Your task to perform on an android device: open app "ZOOM Cloud Meetings" (install if not already installed), go to login, and select forgot password Image 0: 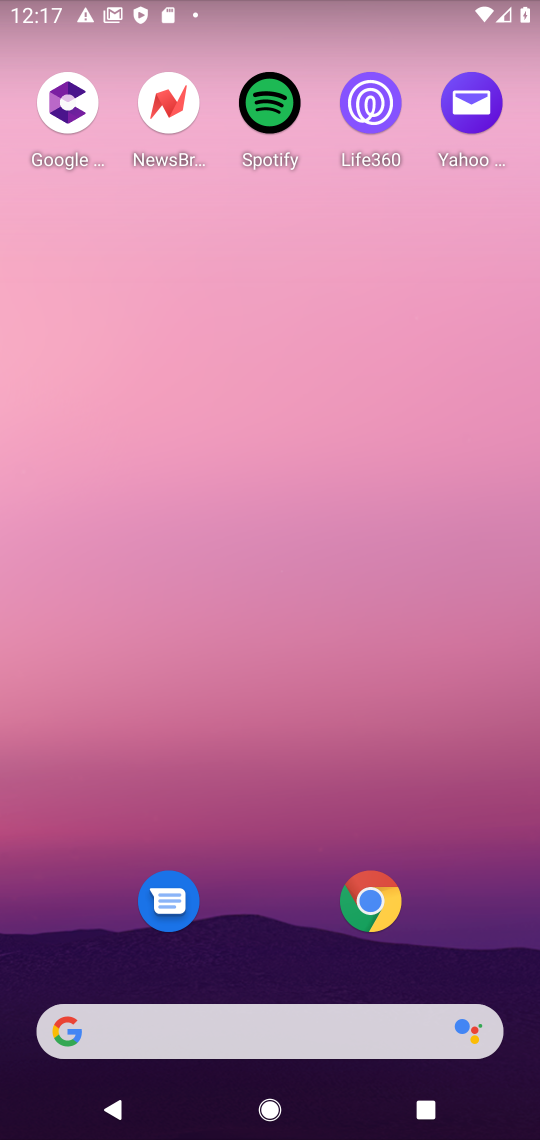
Step 0: drag from (264, 1023) to (216, 53)
Your task to perform on an android device: open app "ZOOM Cloud Meetings" (install if not already installed), go to login, and select forgot password Image 1: 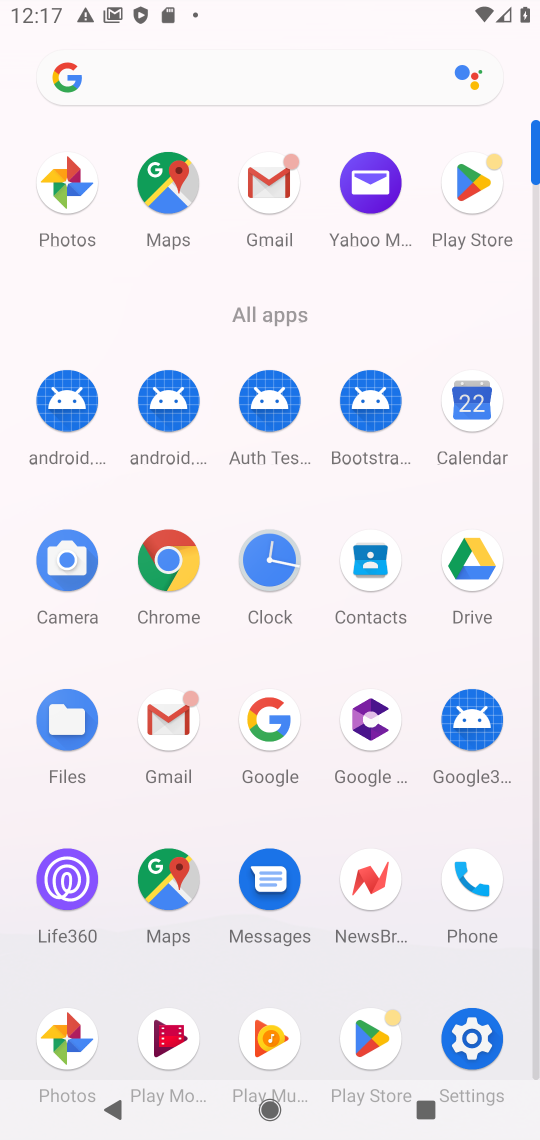
Step 1: click (447, 198)
Your task to perform on an android device: open app "ZOOM Cloud Meetings" (install if not already installed), go to login, and select forgot password Image 2: 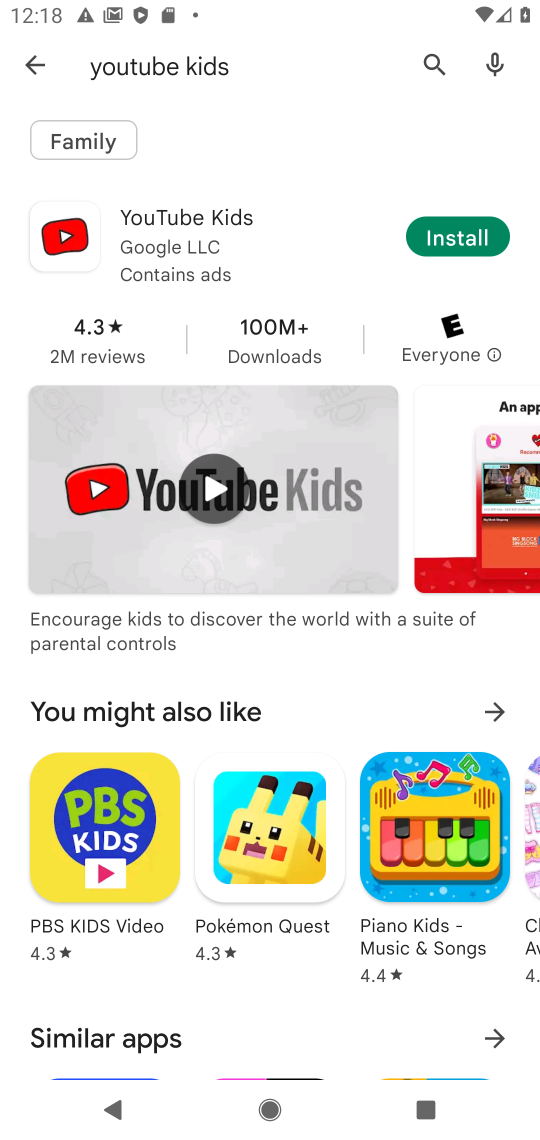
Step 2: click (435, 70)
Your task to perform on an android device: open app "ZOOM Cloud Meetings" (install if not already installed), go to login, and select forgot password Image 3: 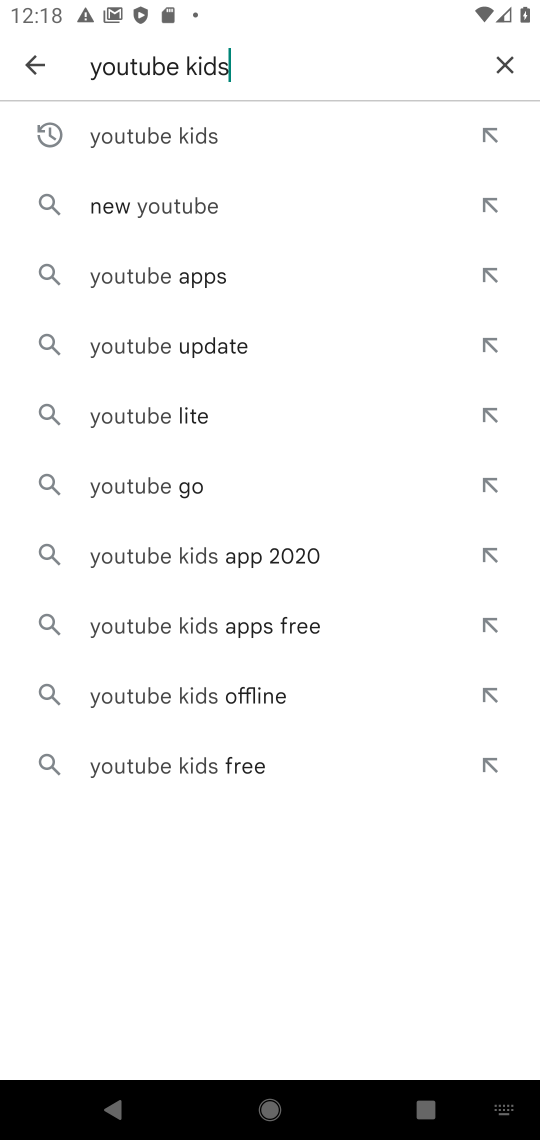
Step 3: click (504, 56)
Your task to perform on an android device: open app "ZOOM Cloud Meetings" (install if not already installed), go to login, and select forgot password Image 4: 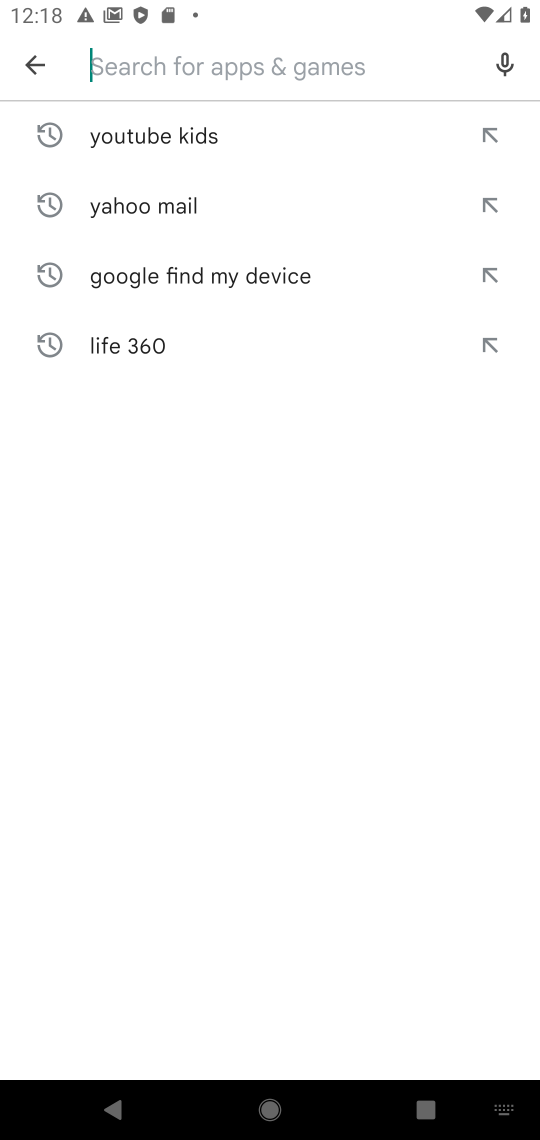
Step 4: type "zoom cloud meetings"
Your task to perform on an android device: open app "ZOOM Cloud Meetings" (install if not already installed), go to login, and select forgot password Image 5: 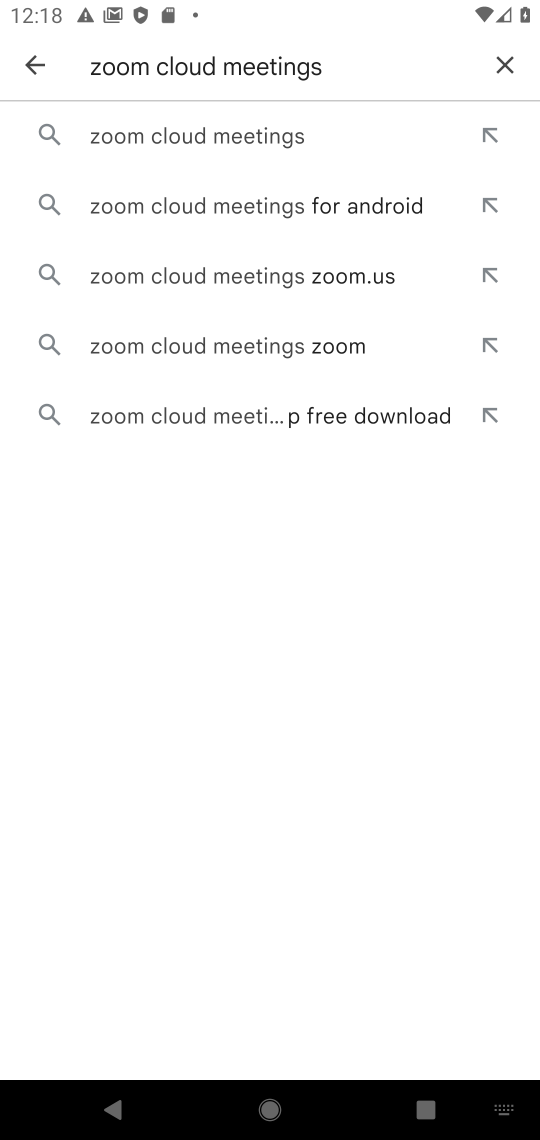
Step 5: click (159, 155)
Your task to perform on an android device: open app "ZOOM Cloud Meetings" (install if not already installed), go to login, and select forgot password Image 6: 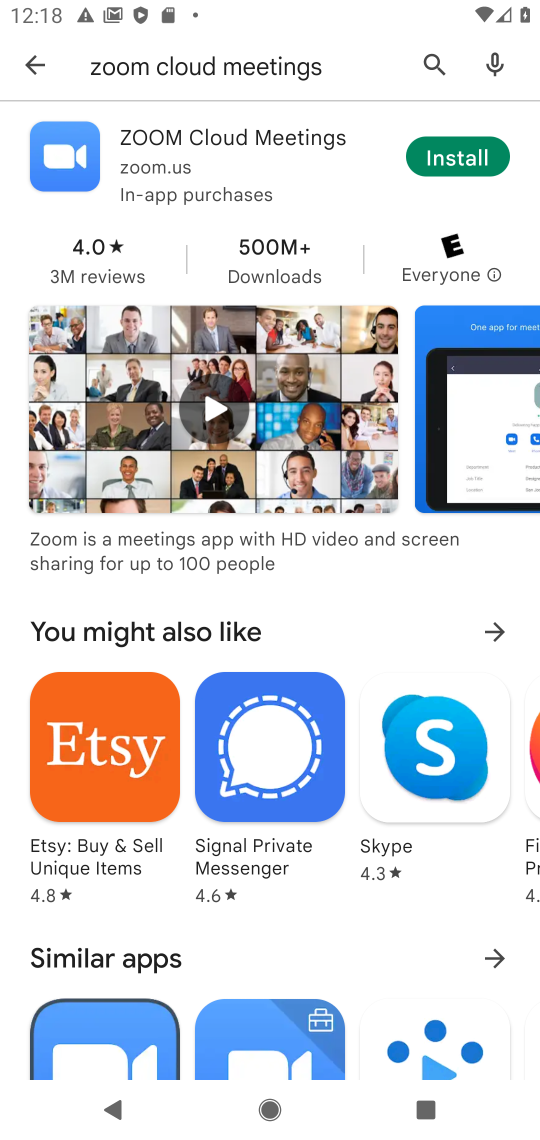
Step 6: click (421, 161)
Your task to perform on an android device: open app "ZOOM Cloud Meetings" (install if not already installed), go to login, and select forgot password Image 7: 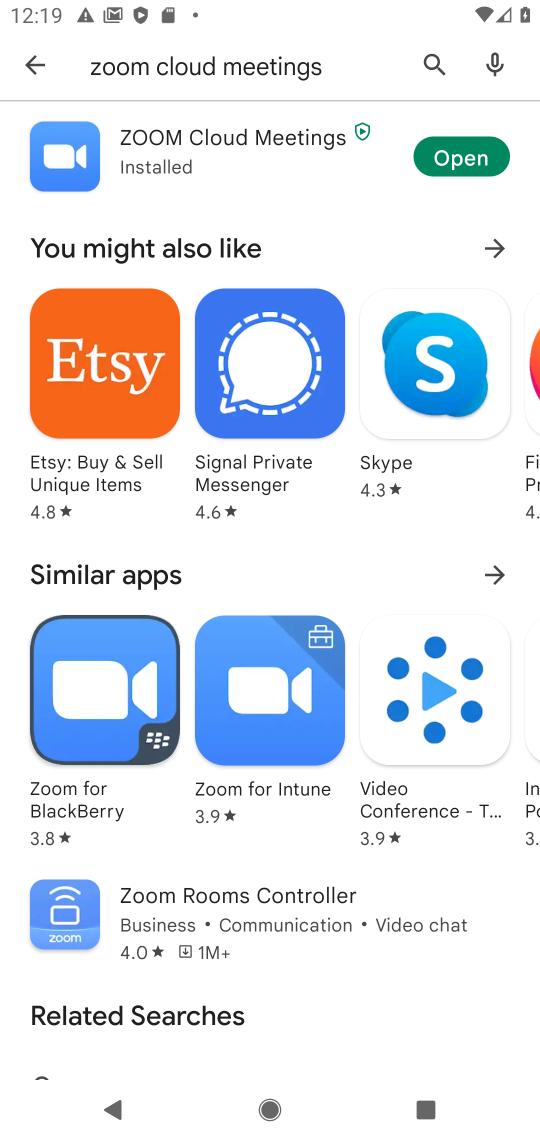
Step 7: click (455, 156)
Your task to perform on an android device: open app "ZOOM Cloud Meetings" (install if not already installed), go to login, and select forgot password Image 8: 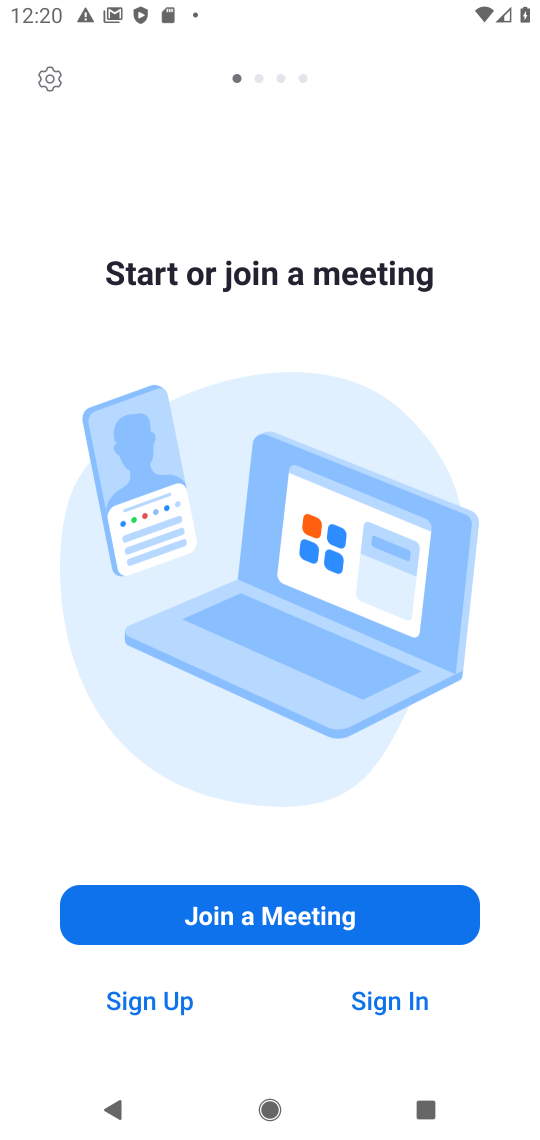
Step 8: click (363, 1015)
Your task to perform on an android device: open app "ZOOM Cloud Meetings" (install if not already installed), go to login, and select forgot password Image 9: 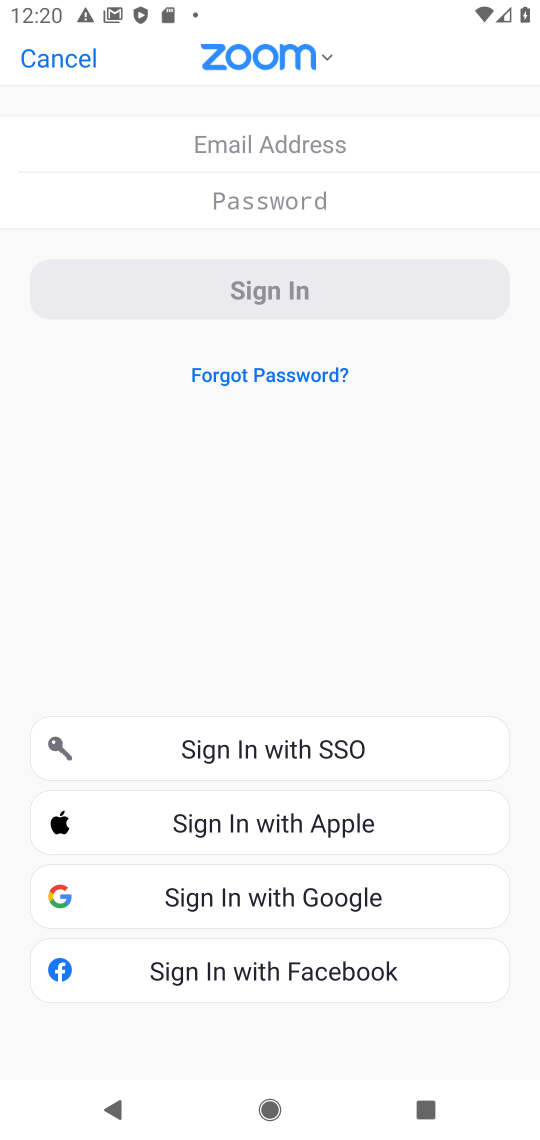
Step 9: click (224, 382)
Your task to perform on an android device: open app "ZOOM Cloud Meetings" (install if not already installed), go to login, and select forgot password Image 10: 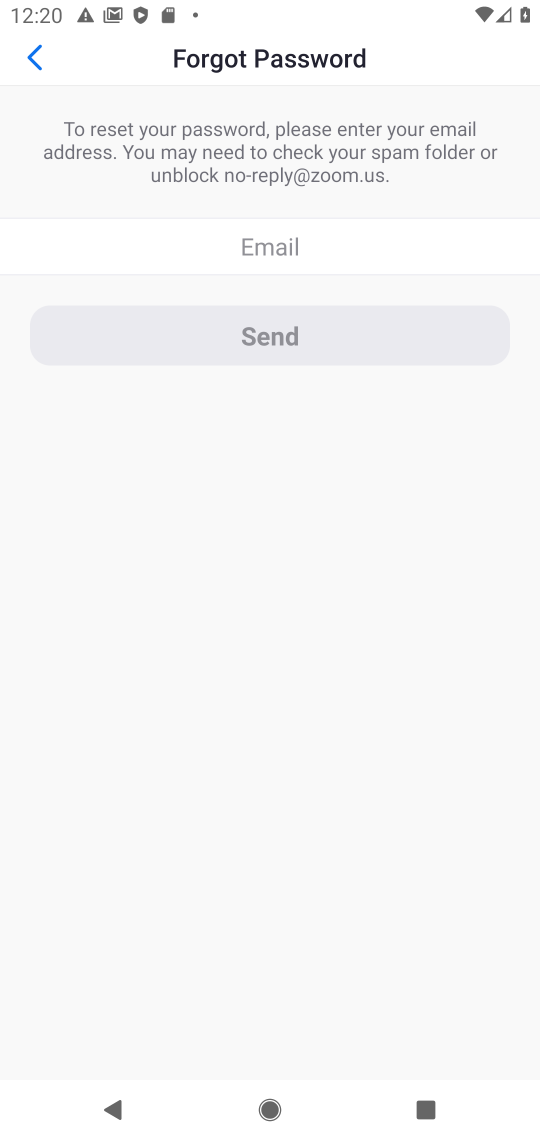
Step 10: task complete